Your task to perform on an android device: Go to display settings Image 0: 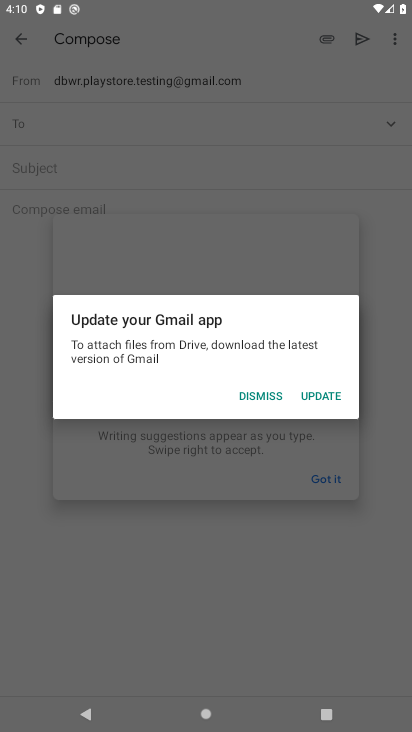
Step 0: click (266, 398)
Your task to perform on an android device: Go to display settings Image 1: 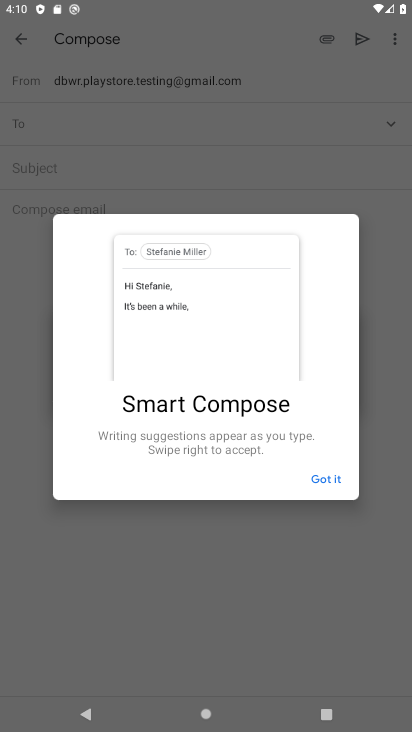
Step 1: click (264, 400)
Your task to perform on an android device: Go to display settings Image 2: 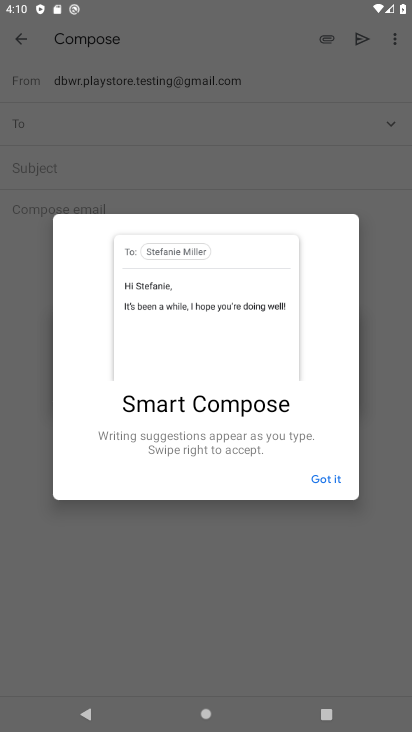
Step 2: click (205, 718)
Your task to perform on an android device: Go to display settings Image 3: 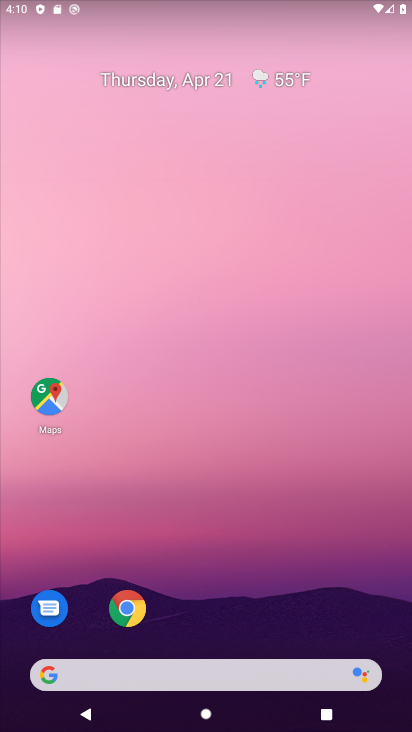
Step 3: drag from (225, 583) to (360, 7)
Your task to perform on an android device: Go to display settings Image 4: 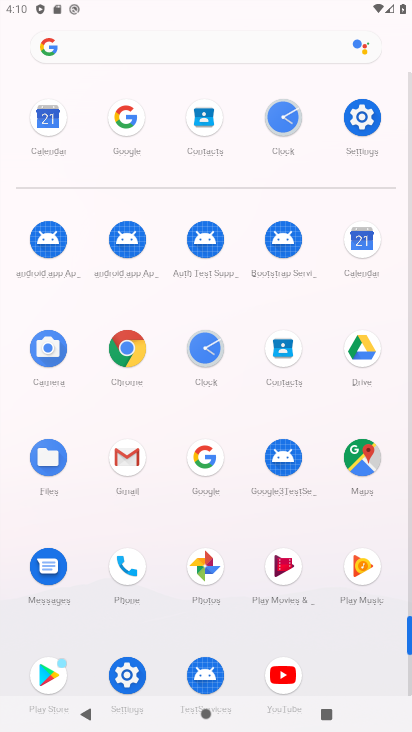
Step 4: click (370, 118)
Your task to perform on an android device: Go to display settings Image 5: 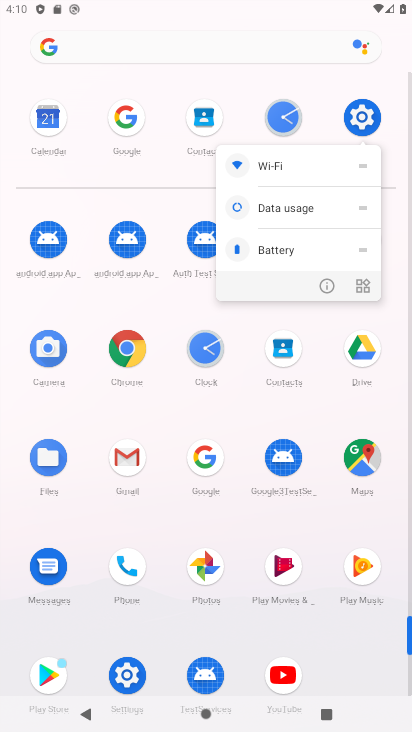
Step 5: click (360, 114)
Your task to perform on an android device: Go to display settings Image 6: 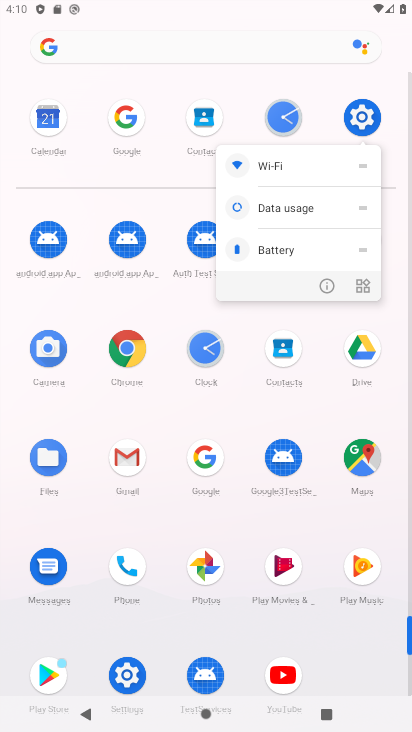
Step 6: click (359, 118)
Your task to perform on an android device: Go to display settings Image 7: 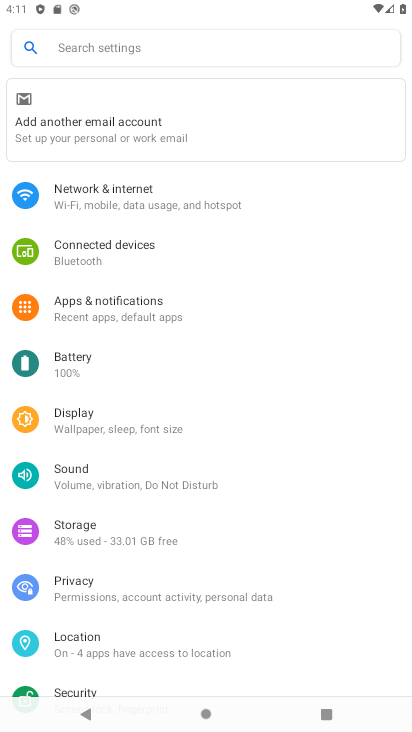
Step 7: click (160, 426)
Your task to perform on an android device: Go to display settings Image 8: 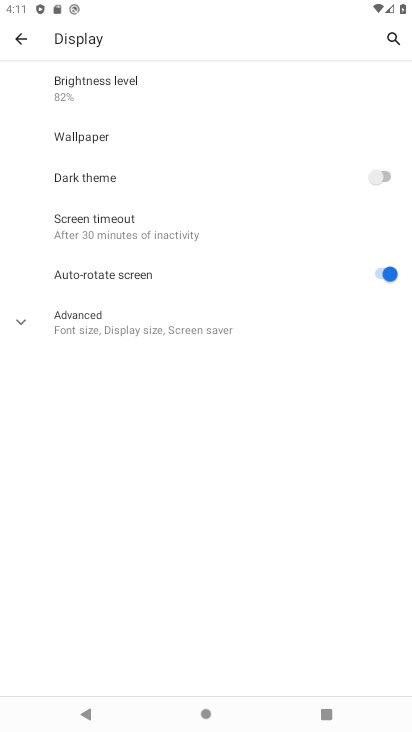
Step 8: task complete